Your task to perform on an android device: Search for Italian restaurants on Maps Image 0: 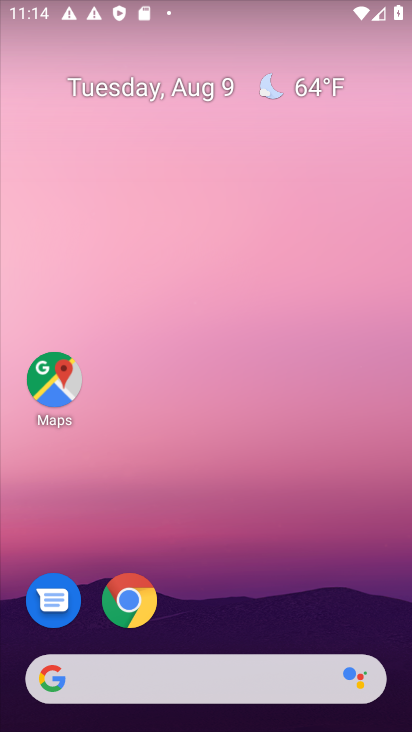
Step 0: click (57, 384)
Your task to perform on an android device: Search for Italian restaurants on Maps Image 1: 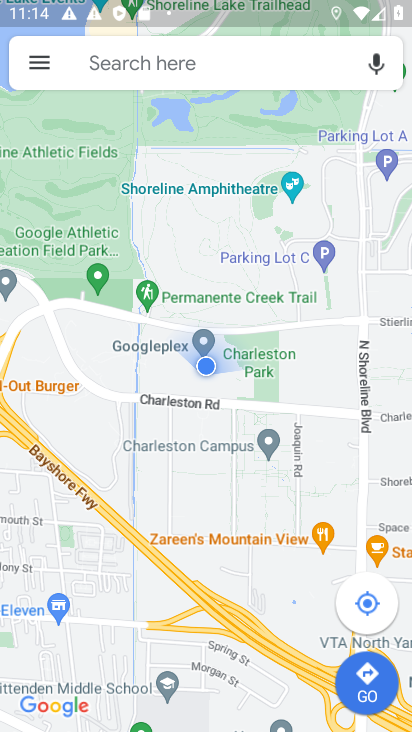
Step 1: click (101, 63)
Your task to perform on an android device: Search for Italian restaurants on Maps Image 2: 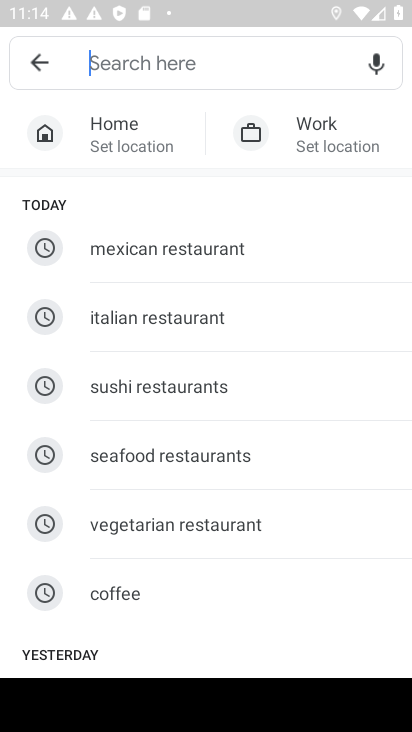
Step 2: type "Italian restaurants"
Your task to perform on an android device: Search for Italian restaurants on Maps Image 3: 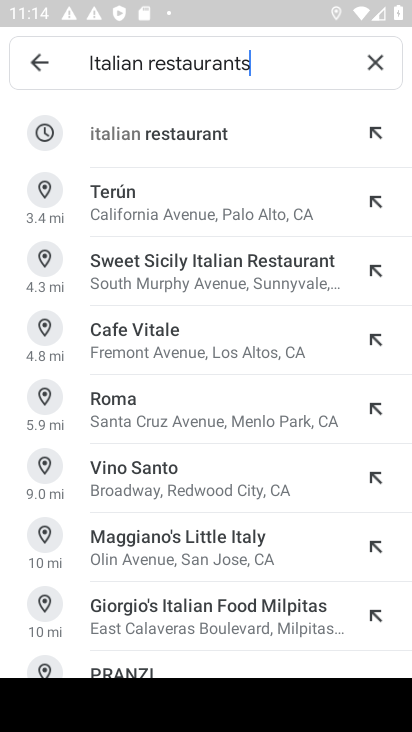
Step 3: click (150, 131)
Your task to perform on an android device: Search for Italian restaurants on Maps Image 4: 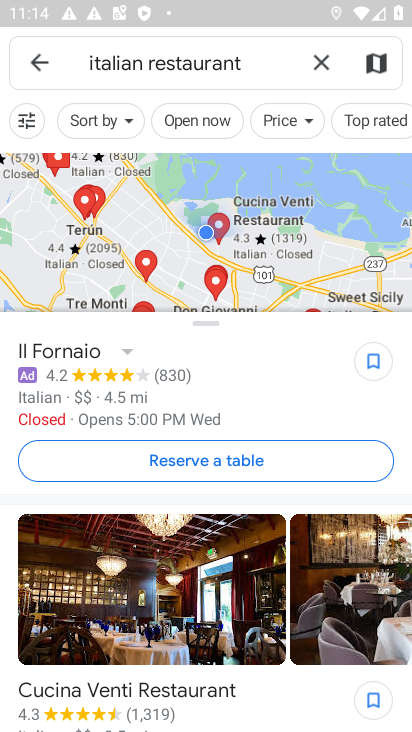
Step 4: task complete